Your task to perform on an android device: Search for vegetarian restaurants on Maps Image 0: 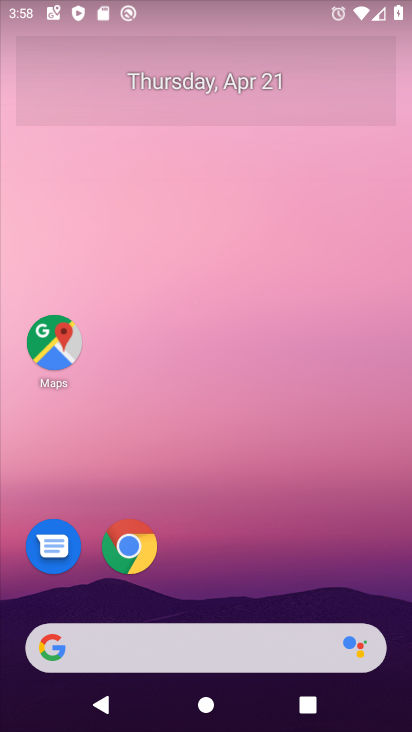
Step 0: drag from (268, 584) to (288, 35)
Your task to perform on an android device: Search for vegetarian restaurants on Maps Image 1: 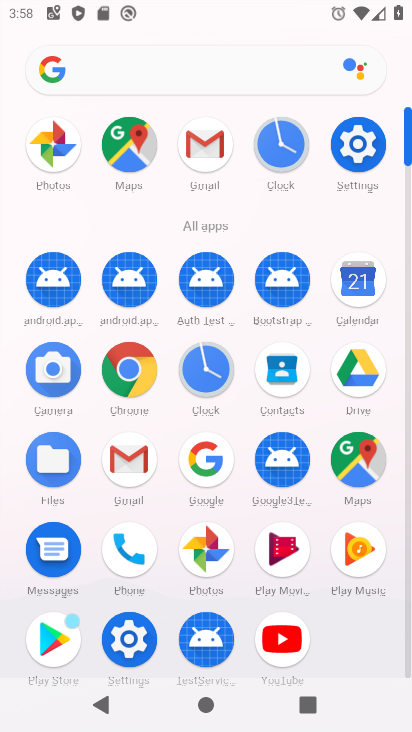
Step 1: click (353, 457)
Your task to perform on an android device: Search for vegetarian restaurants on Maps Image 2: 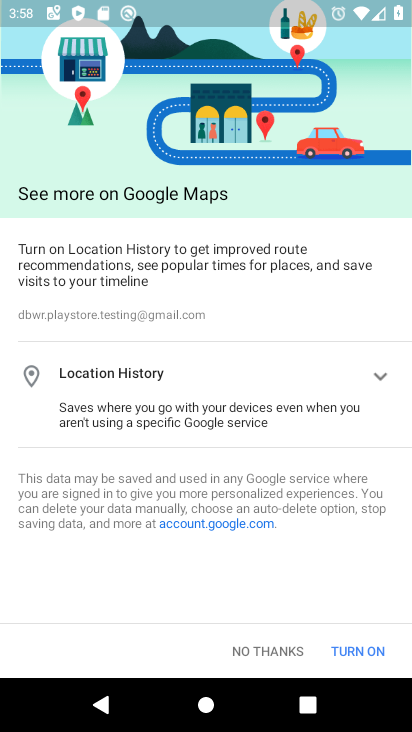
Step 2: click (280, 657)
Your task to perform on an android device: Search for vegetarian restaurants on Maps Image 3: 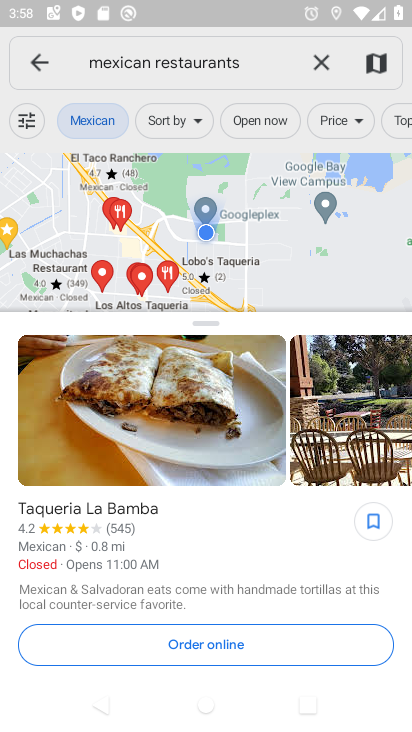
Step 3: click (258, 67)
Your task to perform on an android device: Search for vegetarian restaurants on Maps Image 4: 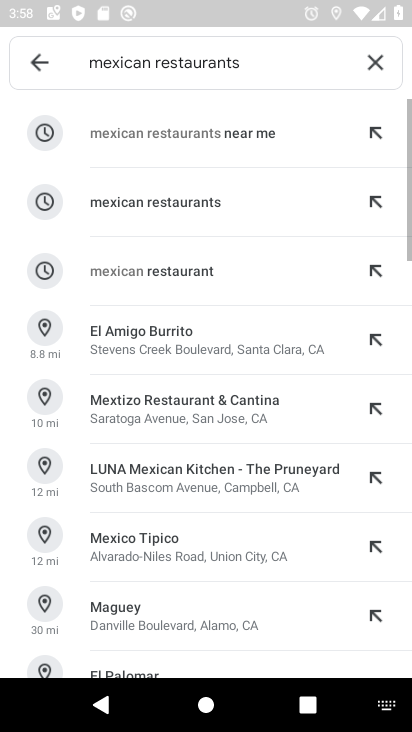
Step 4: click (374, 61)
Your task to perform on an android device: Search for vegetarian restaurants on Maps Image 5: 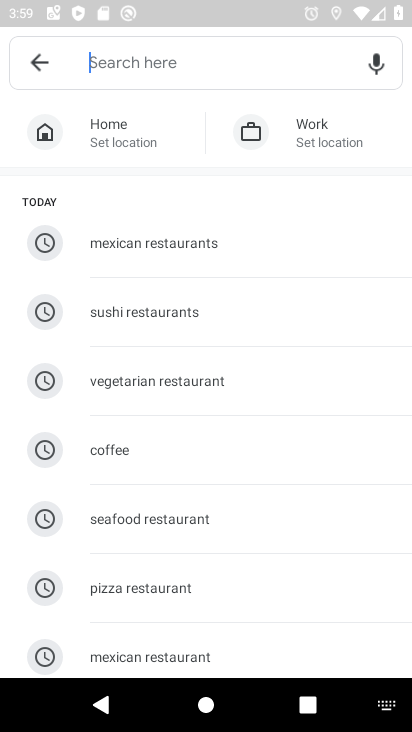
Step 5: type "vegetarian restaurants"
Your task to perform on an android device: Search for vegetarian restaurants on Maps Image 6: 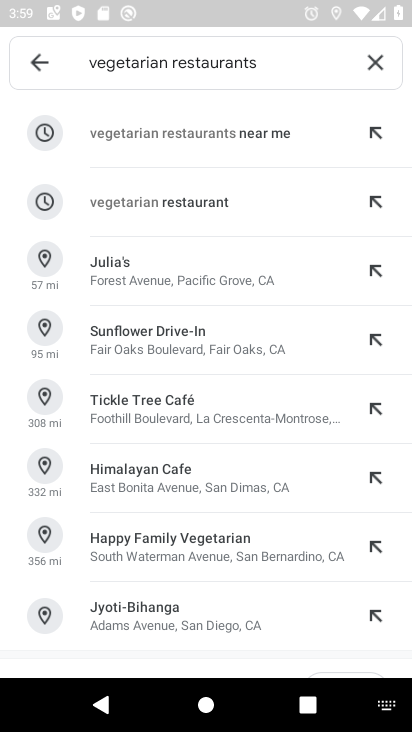
Step 6: press enter
Your task to perform on an android device: Search for vegetarian restaurants on Maps Image 7: 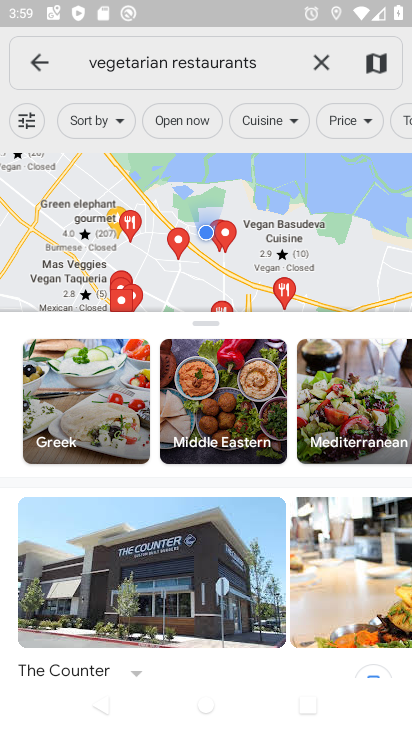
Step 7: task complete